Your task to perform on an android device: allow cookies in the chrome app Image 0: 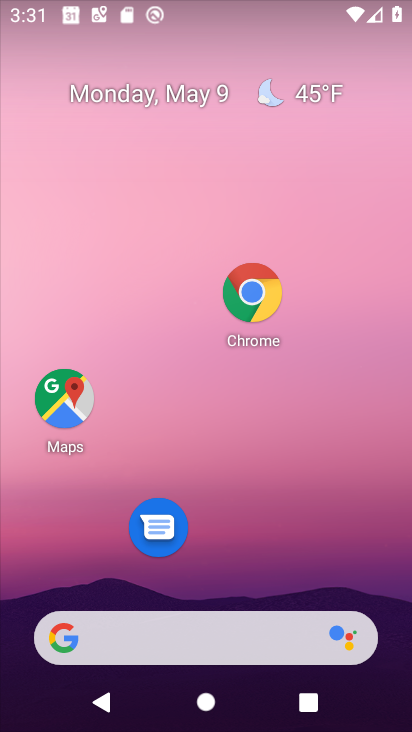
Step 0: click (253, 320)
Your task to perform on an android device: allow cookies in the chrome app Image 1: 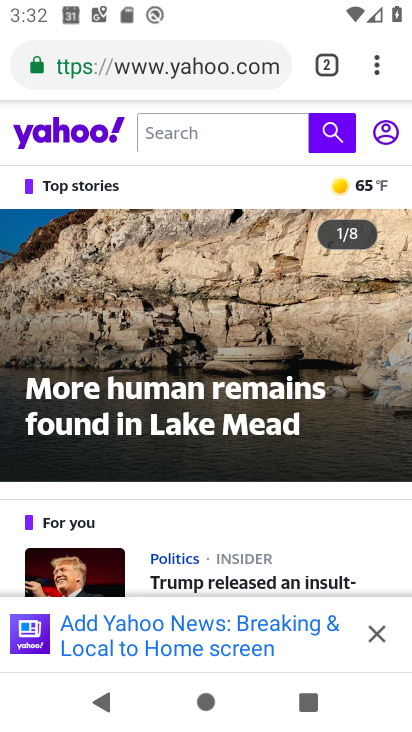
Step 1: click (377, 634)
Your task to perform on an android device: allow cookies in the chrome app Image 2: 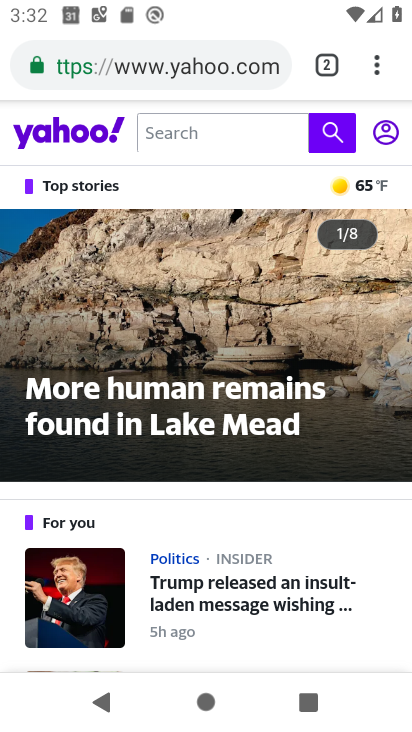
Step 2: click (379, 75)
Your task to perform on an android device: allow cookies in the chrome app Image 3: 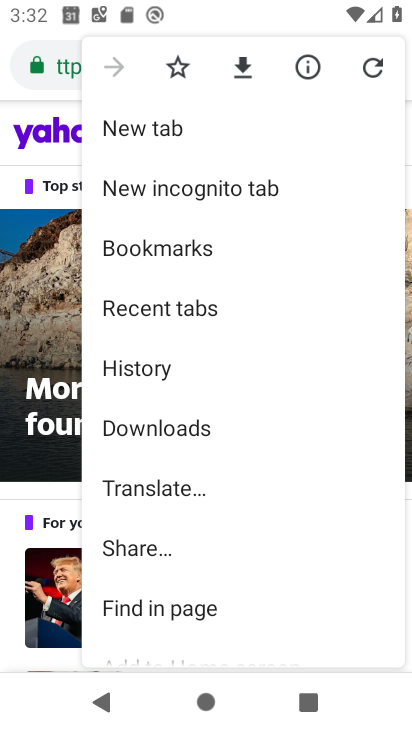
Step 3: drag from (208, 441) to (260, 155)
Your task to perform on an android device: allow cookies in the chrome app Image 4: 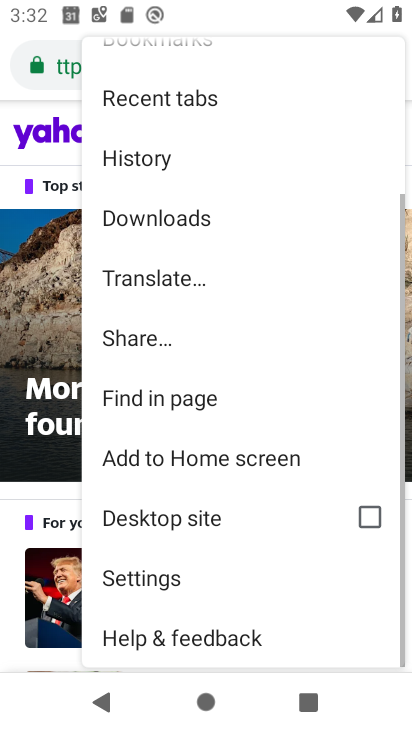
Step 4: drag from (265, 384) to (255, 176)
Your task to perform on an android device: allow cookies in the chrome app Image 5: 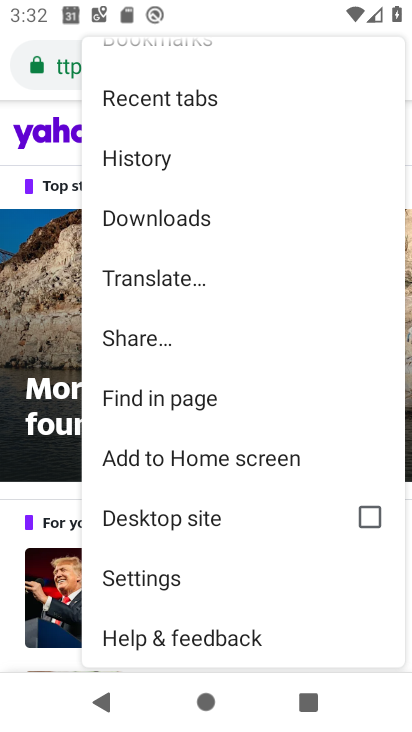
Step 5: click (226, 571)
Your task to perform on an android device: allow cookies in the chrome app Image 6: 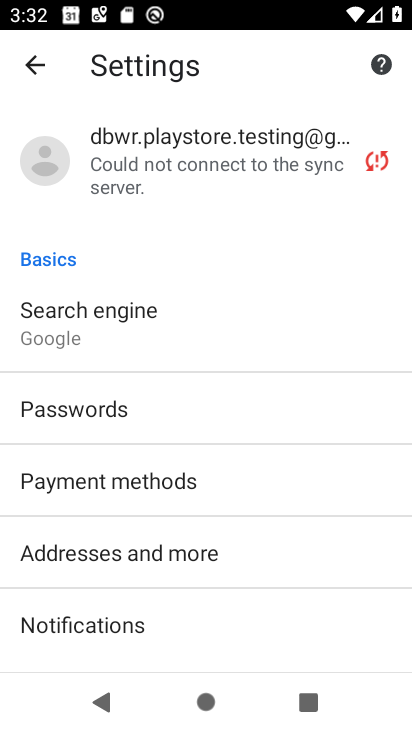
Step 6: drag from (226, 571) to (291, 319)
Your task to perform on an android device: allow cookies in the chrome app Image 7: 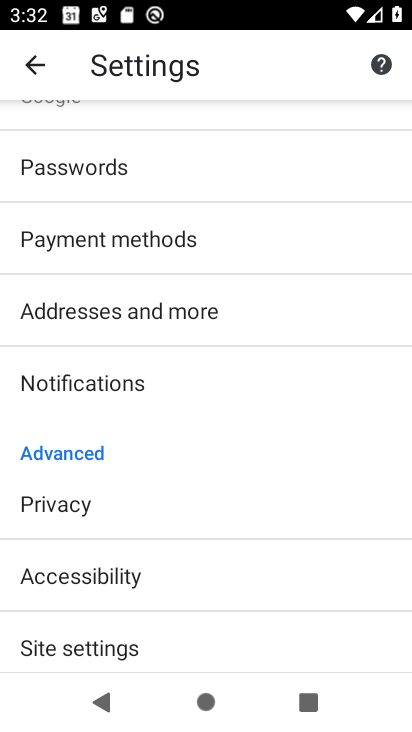
Step 7: click (156, 643)
Your task to perform on an android device: allow cookies in the chrome app Image 8: 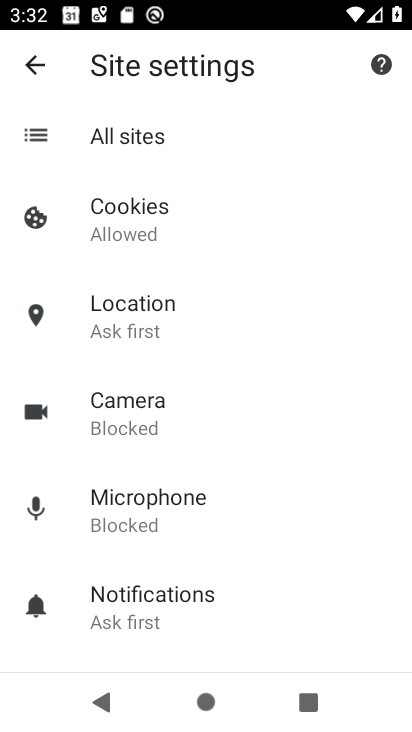
Step 8: click (244, 224)
Your task to perform on an android device: allow cookies in the chrome app Image 9: 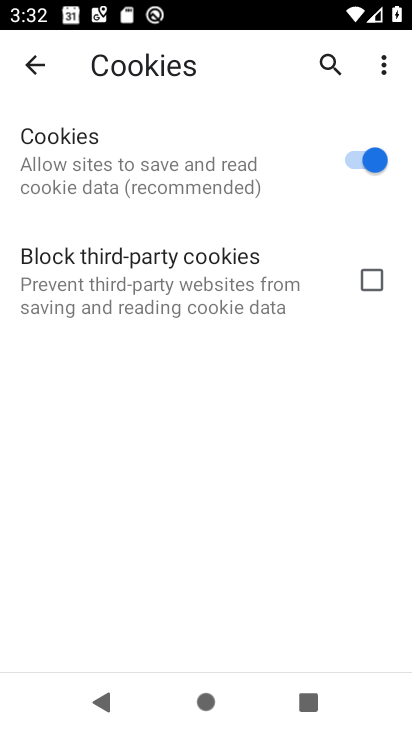
Step 9: task complete